Your task to perform on an android device: turn on translation in the chrome app Image 0: 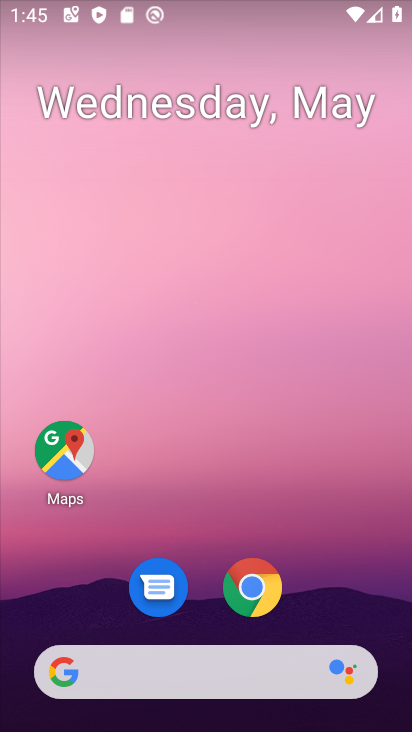
Step 0: click (267, 587)
Your task to perform on an android device: turn on translation in the chrome app Image 1: 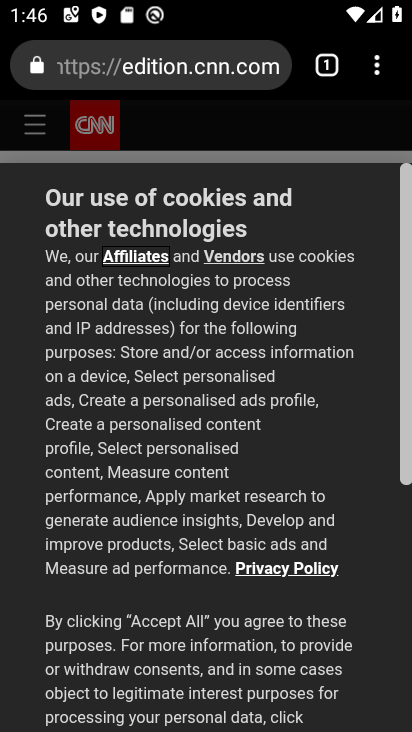
Step 1: click (384, 70)
Your task to perform on an android device: turn on translation in the chrome app Image 2: 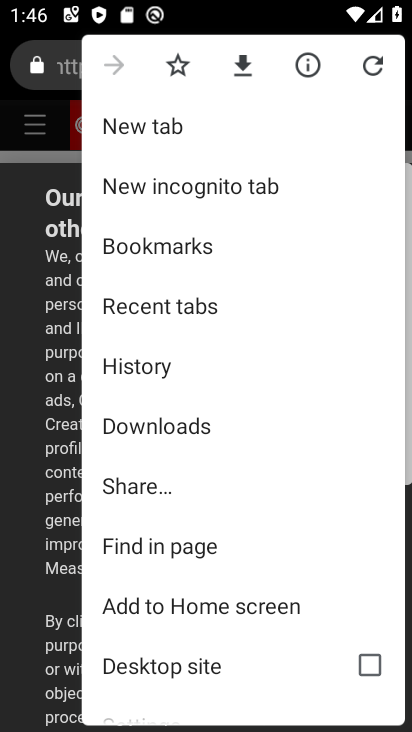
Step 2: drag from (185, 638) to (189, 114)
Your task to perform on an android device: turn on translation in the chrome app Image 3: 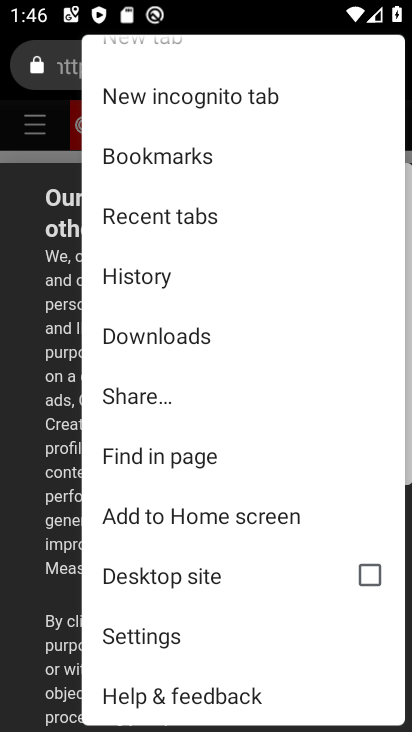
Step 3: click (203, 640)
Your task to perform on an android device: turn on translation in the chrome app Image 4: 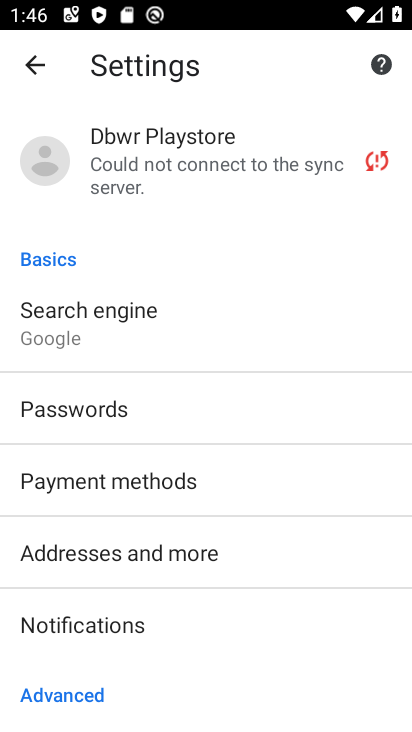
Step 4: drag from (201, 687) to (194, 341)
Your task to perform on an android device: turn on translation in the chrome app Image 5: 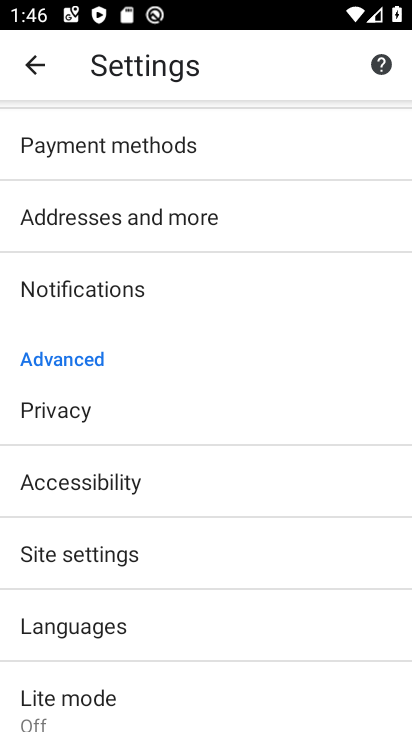
Step 5: click (189, 628)
Your task to perform on an android device: turn on translation in the chrome app Image 6: 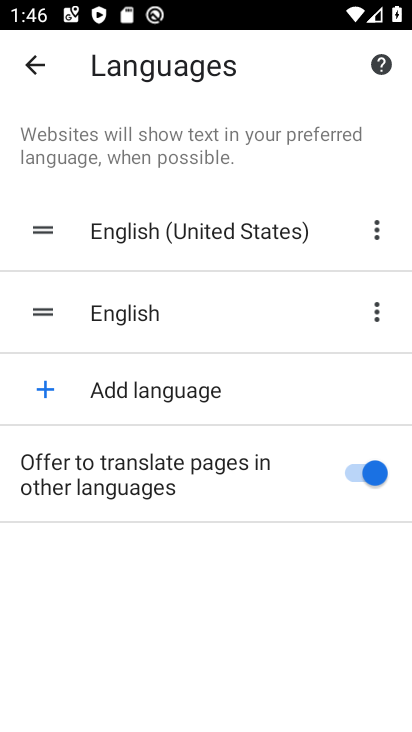
Step 6: task complete